Your task to perform on an android device: Show me popular videos on Youtube Image 0: 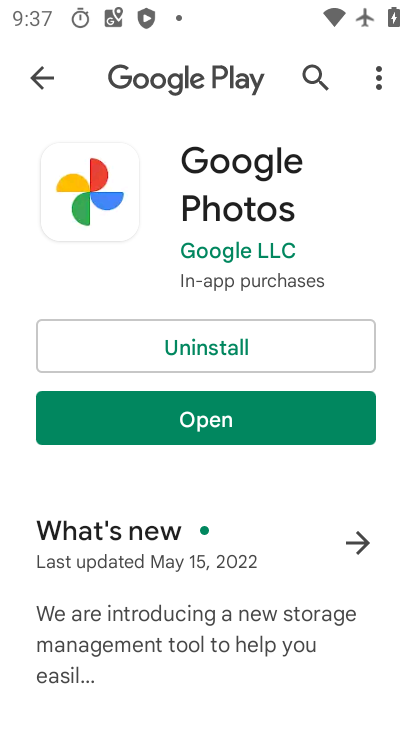
Step 0: press home button
Your task to perform on an android device: Show me popular videos on Youtube Image 1: 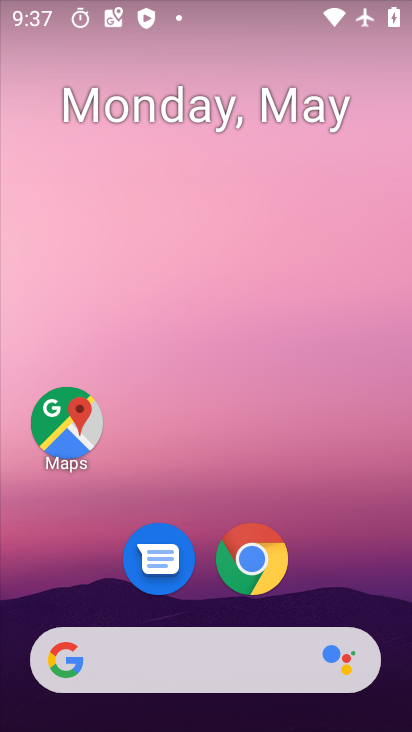
Step 1: drag from (204, 613) to (201, 27)
Your task to perform on an android device: Show me popular videos on Youtube Image 2: 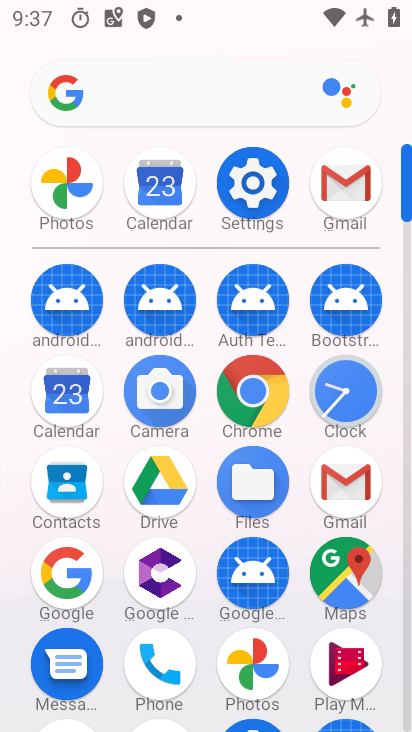
Step 2: drag from (289, 621) to (287, 96)
Your task to perform on an android device: Show me popular videos on Youtube Image 3: 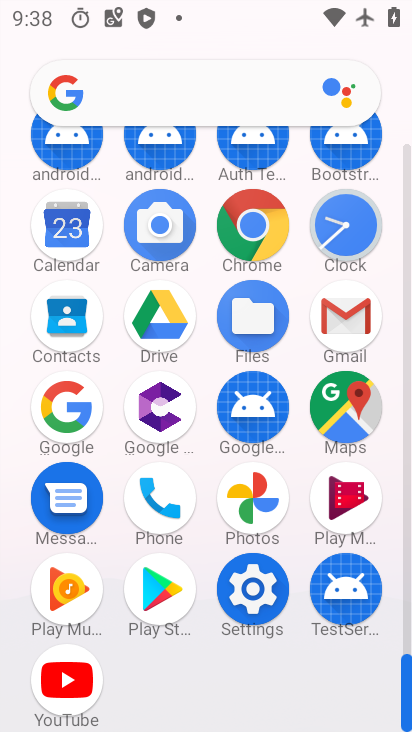
Step 3: click (58, 684)
Your task to perform on an android device: Show me popular videos on Youtube Image 4: 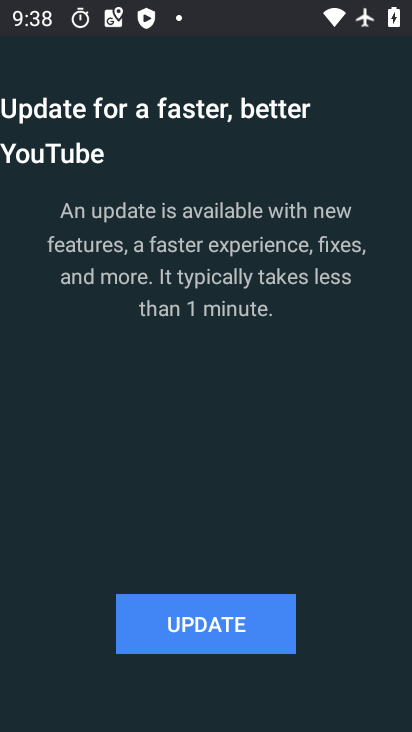
Step 4: click (179, 622)
Your task to perform on an android device: Show me popular videos on Youtube Image 5: 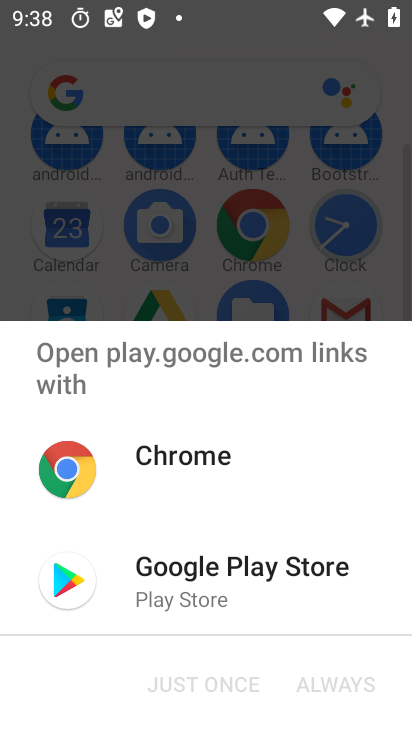
Step 5: click (99, 596)
Your task to perform on an android device: Show me popular videos on Youtube Image 6: 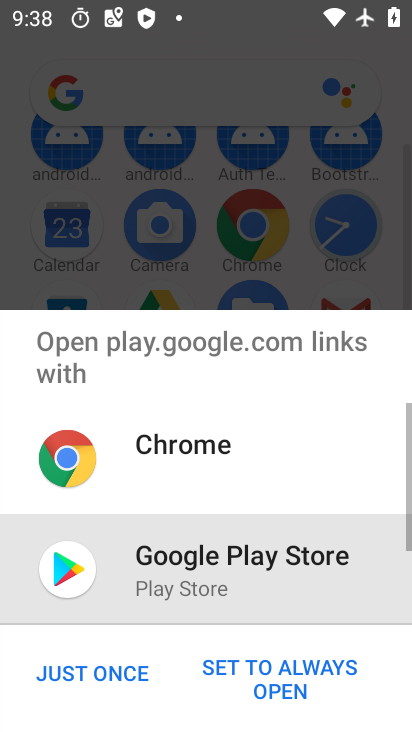
Step 6: click (74, 679)
Your task to perform on an android device: Show me popular videos on Youtube Image 7: 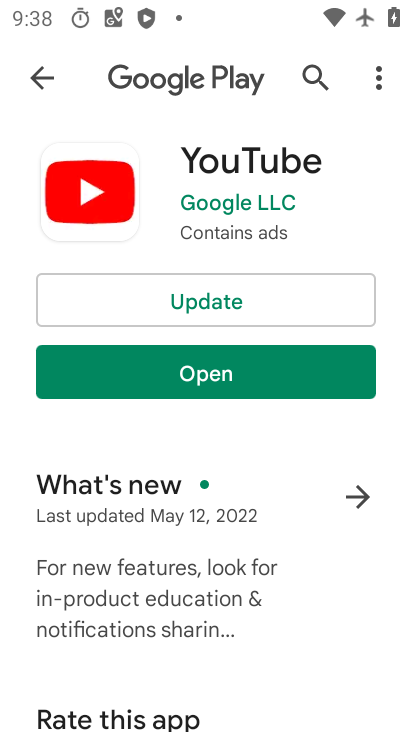
Step 7: click (192, 304)
Your task to perform on an android device: Show me popular videos on Youtube Image 8: 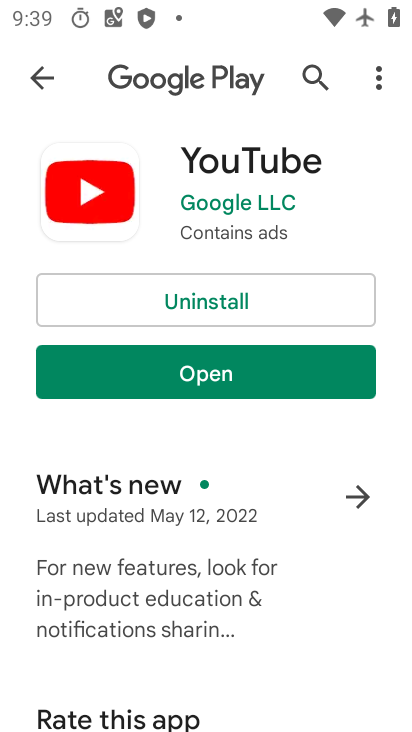
Step 8: click (241, 382)
Your task to perform on an android device: Show me popular videos on Youtube Image 9: 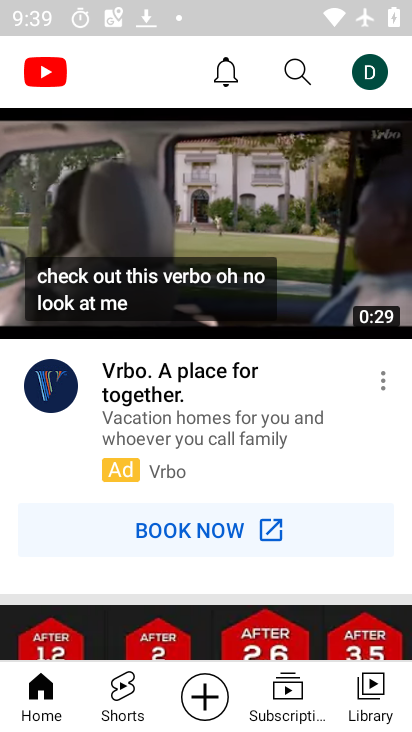
Step 9: drag from (86, 320) to (80, 697)
Your task to perform on an android device: Show me popular videos on Youtube Image 10: 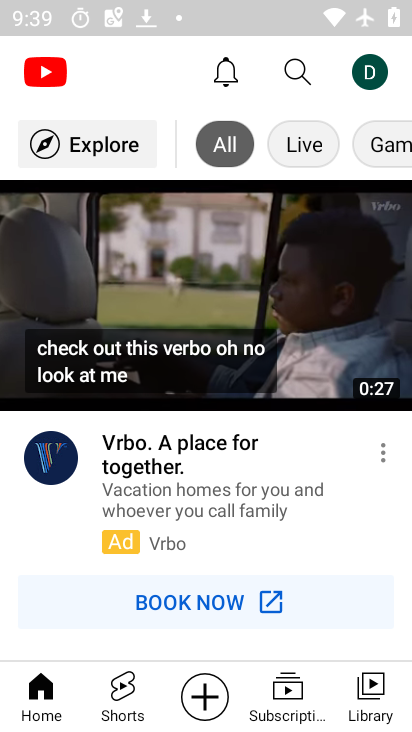
Step 10: click (58, 125)
Your task to perform on an android device: Show me popular videos on Youtube Image 11: 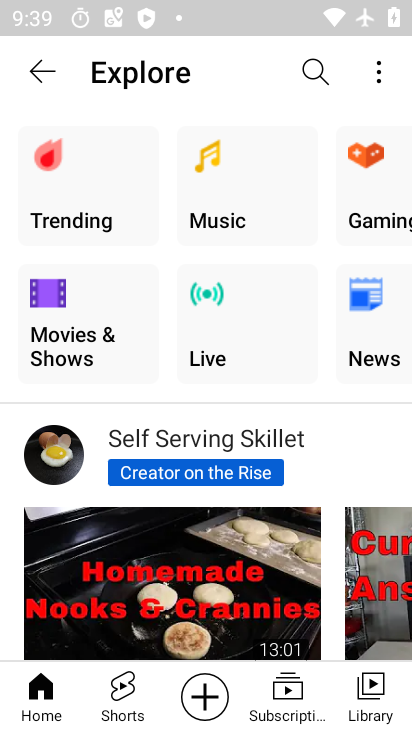
Step 11: click (69, 219)
Your task to perform on an android device: Show me popular videos on Youtube Image 12: 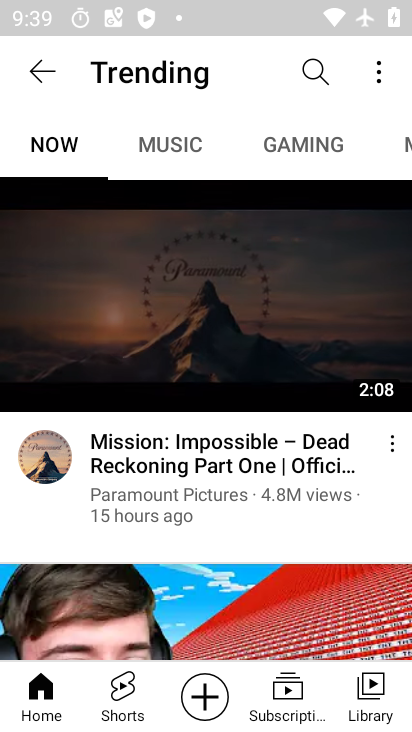
Step 12: task complete